Your task to perform on an android device: turn on improve location accuracy Image 0: 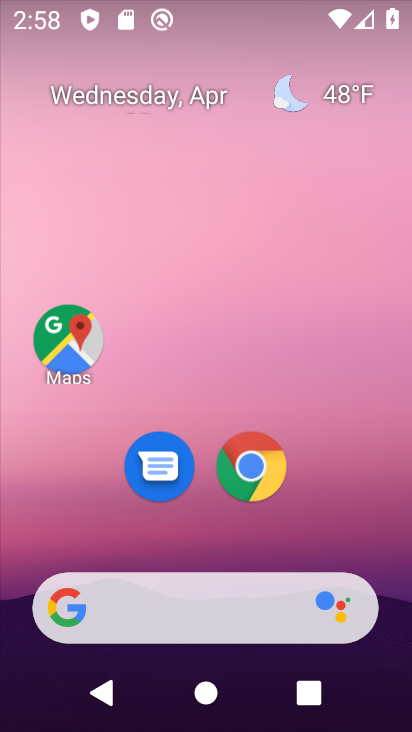
Step 0: drag from (357, 512) to (343, 91)
Your task to perform on an android device: turn on improve location accuracy Image 1: 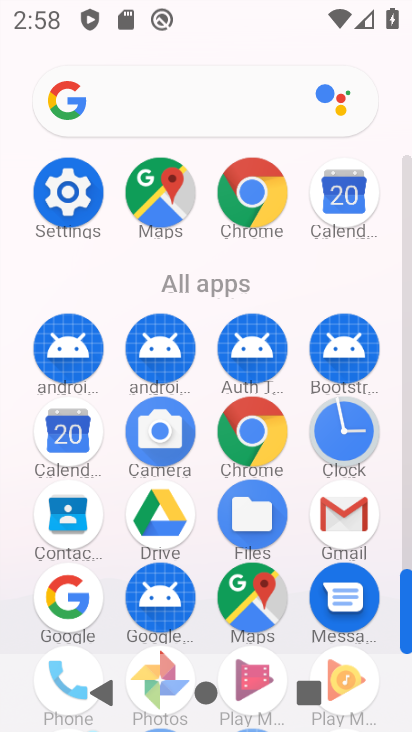
Step 1: click (83, 187)
Your task to perform on an android device: turn on improve location accuracy Image 2: 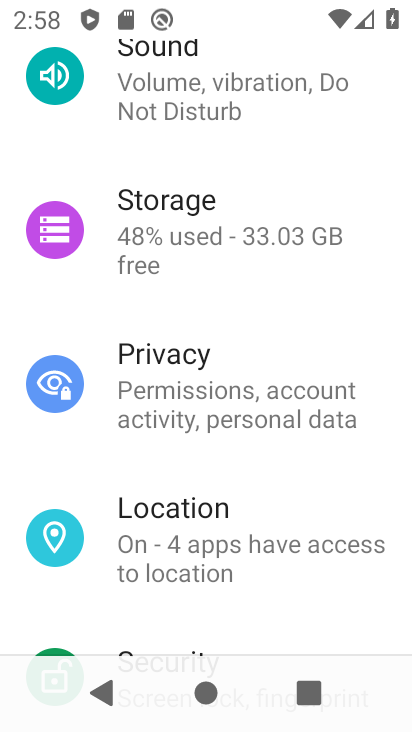
Step 2: click (249, 535)
Your task to perform on an android device: turn on improve location accuracy Image 3: 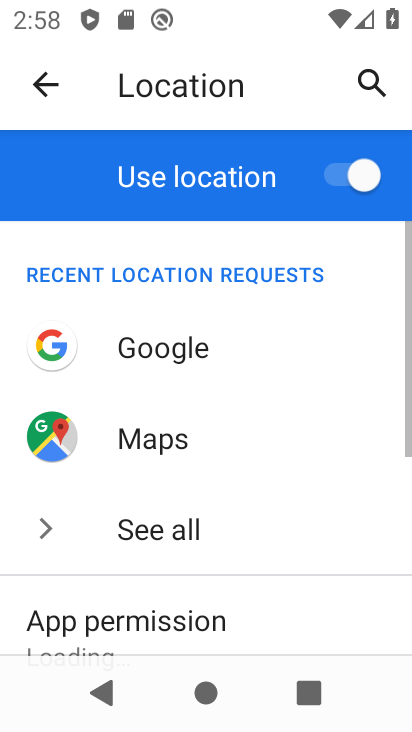
Step 3: drag from (217, 587) to (211, 56)
Your task to perform on an android device: turn on improve location accuracy Image 4: 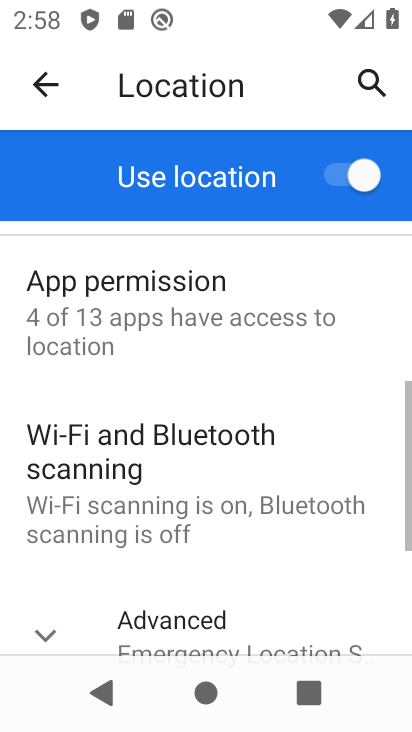
Step 4: click (46, 630)
Your task to perform on an android device: turn on improve location accuracy Image 5: 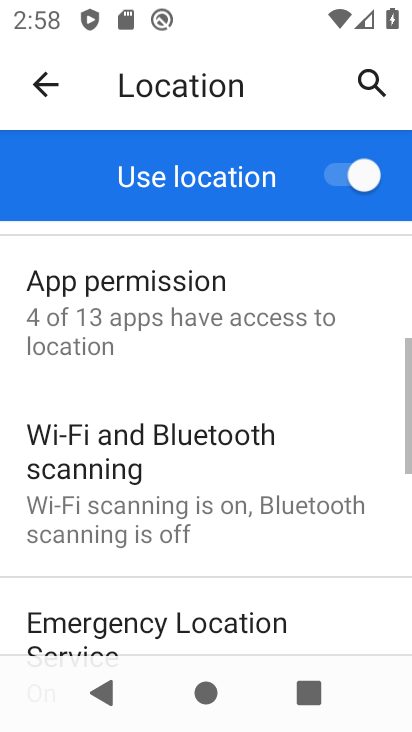
Step 5: task complete